Your task to perform on an android device: Go to Reddit.com Image 0: 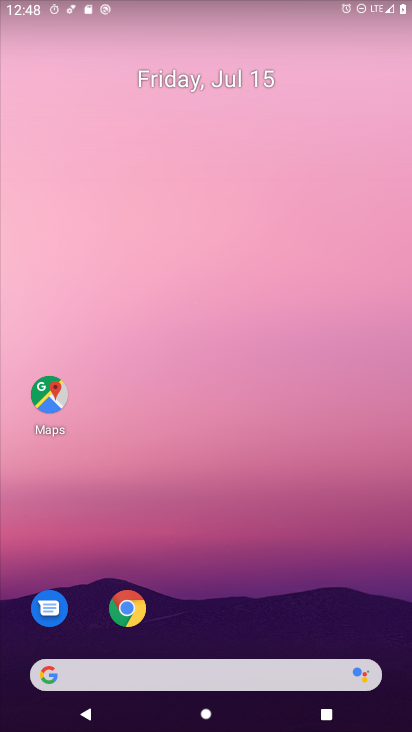
Step 0: drag from (287, 658) to (330, 6)
Your task to perform on an android device: Go to Reddit.com Image 1: 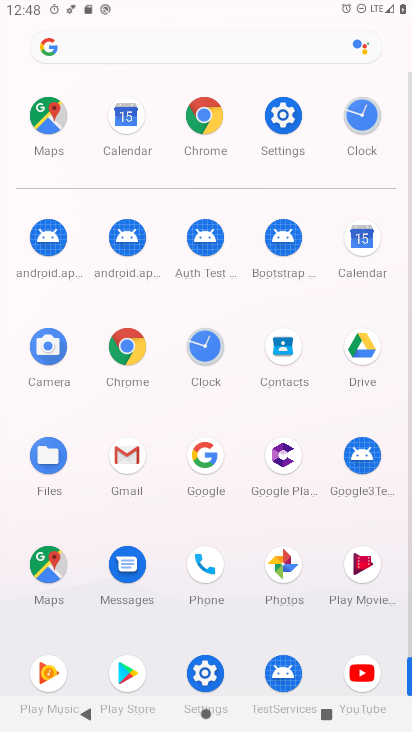
Step 1: click (117, 358)
Your task to perform on an android device: Go to Reddit.com Image 2: 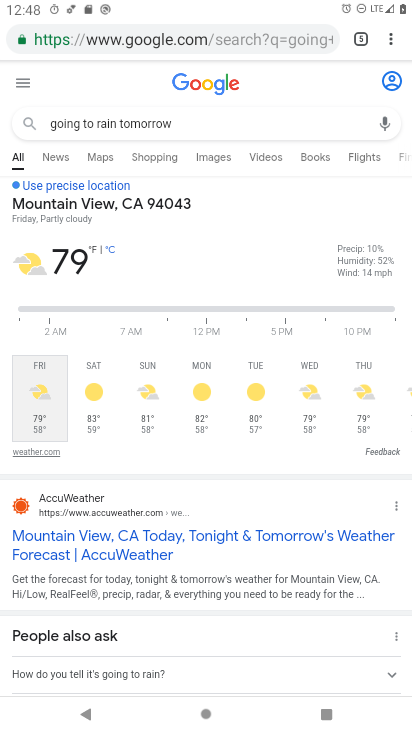
Step 2: click (226, 28)
Your task to perform on an android device: Go to Reddit.com Image 3: 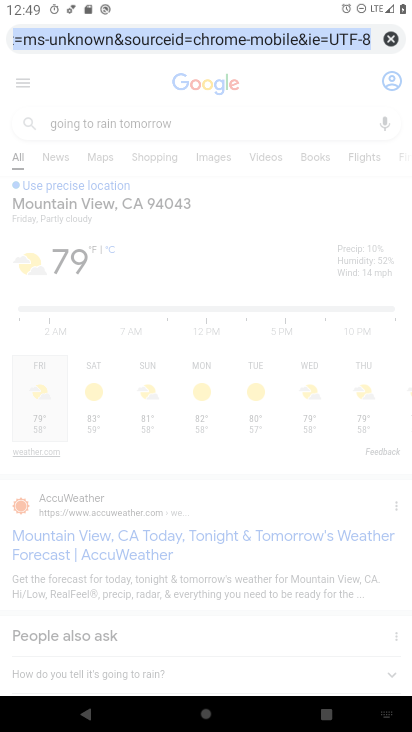
Step 3: type "reddit.com"
Your task to perform on an android device: Go to Reddit.com Image 4: 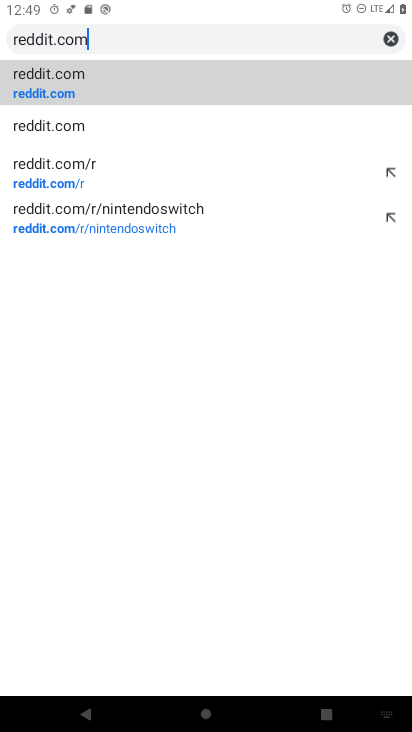
Step 4: click (78, 92)
Your task to perform on an android device: Go to Reddit.com Image 5: 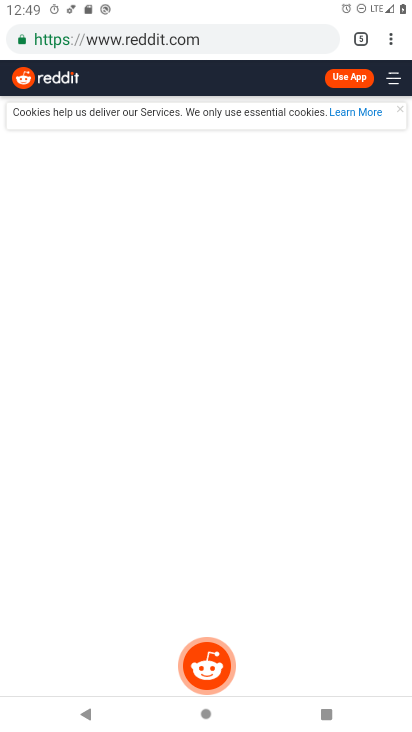
Step 5: task complete